Your task to perform on an android device: see sites visited before in the chrome app Image 0: 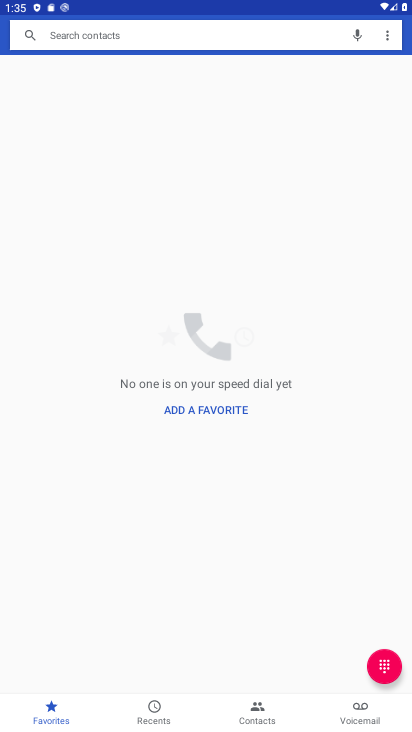
Step 0: press home button
Your task to perform on an android device: see sites visited before in the chrome app Image 1: 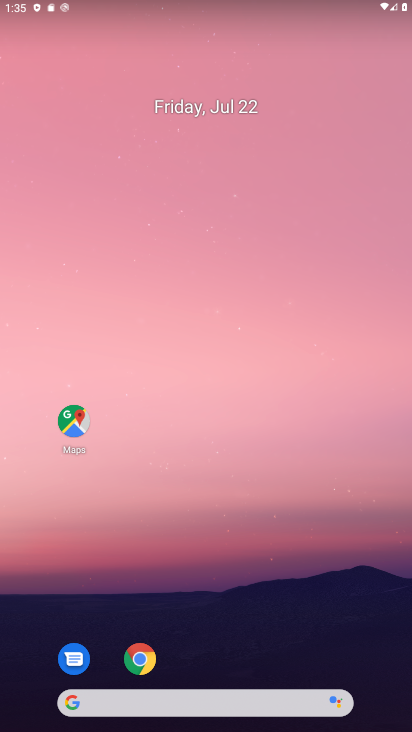
Step 1: click (155, 662)
Your task to perform on an android device: see sites visited before in the chrome app Image 2: 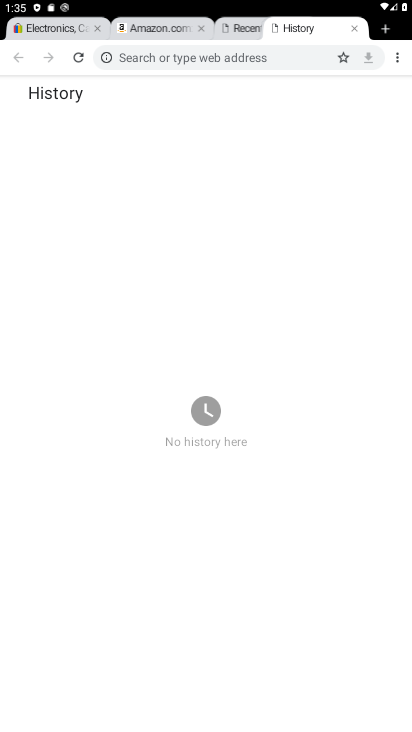
Step 2: task complete